Your task to perform on an android device: set default search engine in the chrome app Image 0: 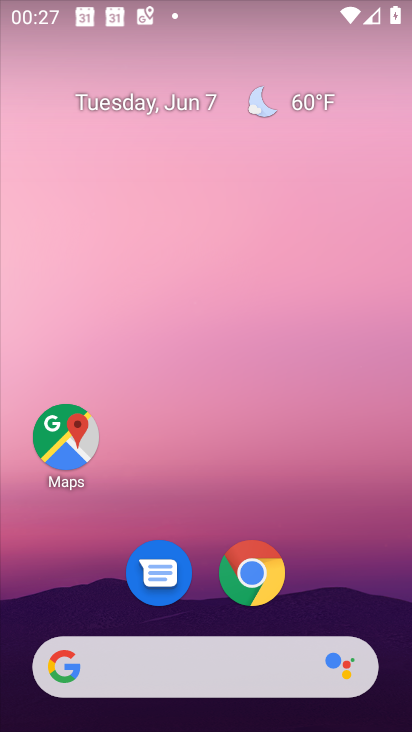
Step 0: press home button
Your task to perform on an android device: set default search engine in the chrome app Image 1: 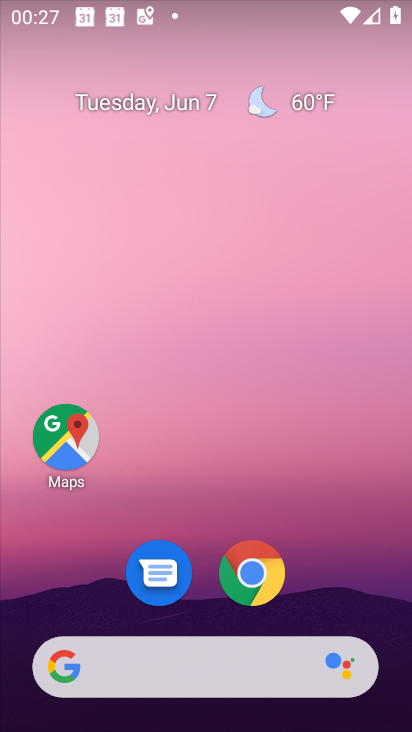
Step 1: drag from (325, 558) to (241, 227)
Your task to perform on an android device: set default search engine in the chrome app Image 2: 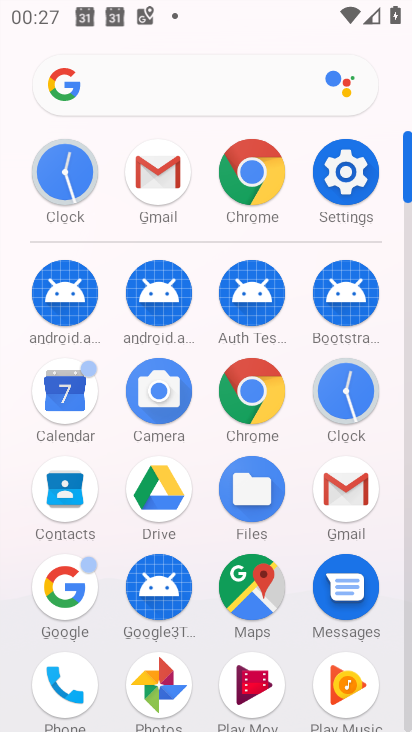
Step 2: click (234, 183)
Your task to perform on an android device: set default search engine in the chrome app Image 3: 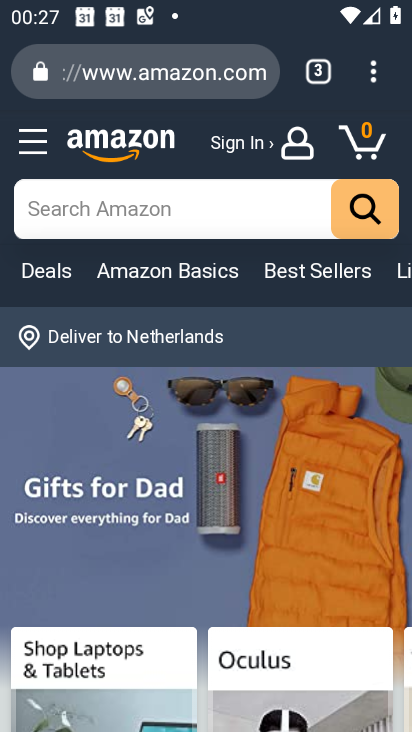
Step 3: drag from (366, 78) to (230, 677)
Your task to perform on an android device: set default search engine in the chrome app Image 4: 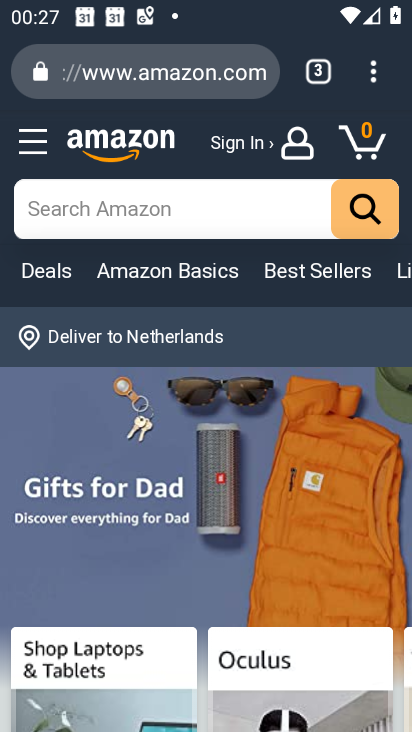
Step 4: drag from (370, 66) to (144, 555)
Your task to perform on an android device: set default search engine in the chrome app Image 5: 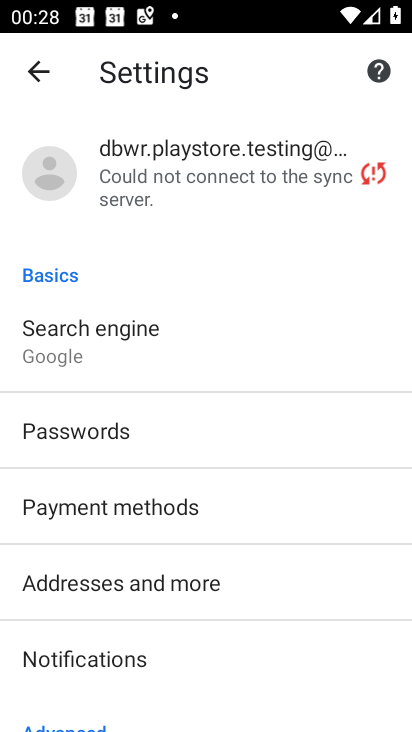
Step 5: drag from (280, 651) to (193, 228)
Your task to perform on an android device: set default search engine in the chrome app Image 6: 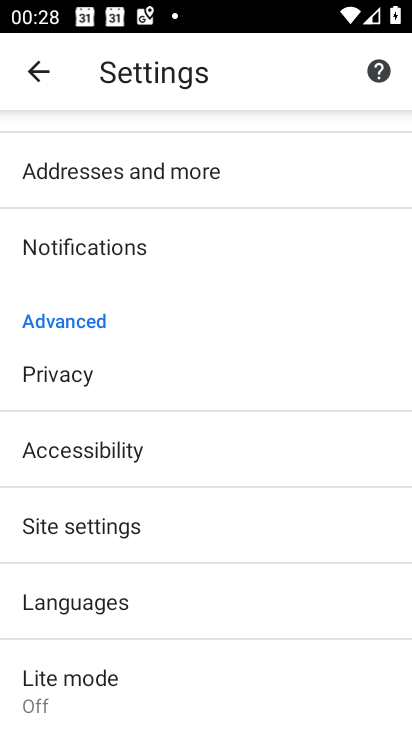
Step 6: drag from (253, 323) to (188, 706)
Your task to perform on an android device: set default search engine in the chrome app Image 7: 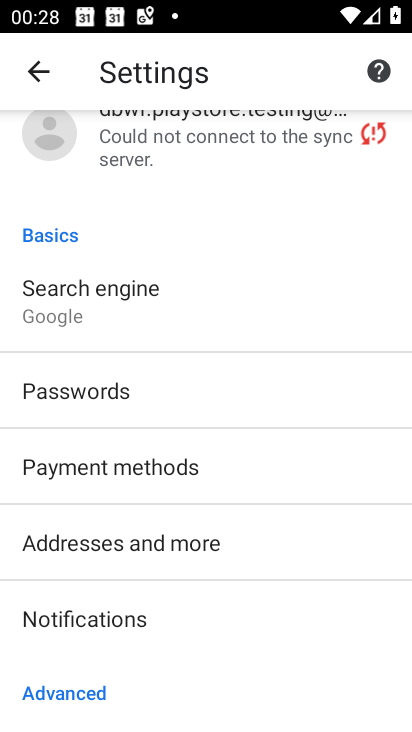
Step 7: click (186, 323)
Your task to perform on an android device: set default search engine in the chrome app Image 8: 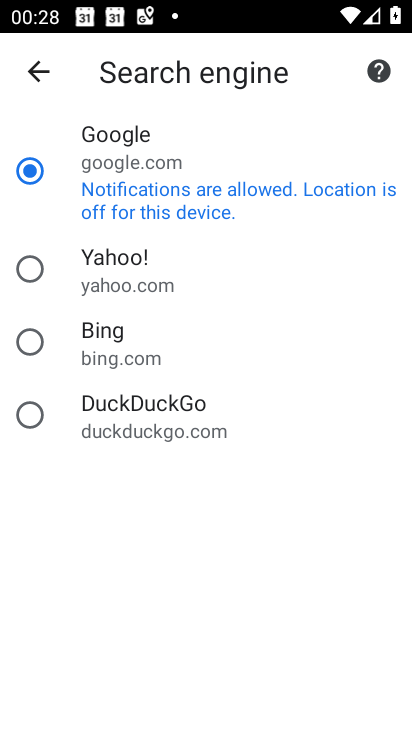
Step 8: task complete